Your task to perform on an android device: Open calendar and show me the third week of next month Image 0: 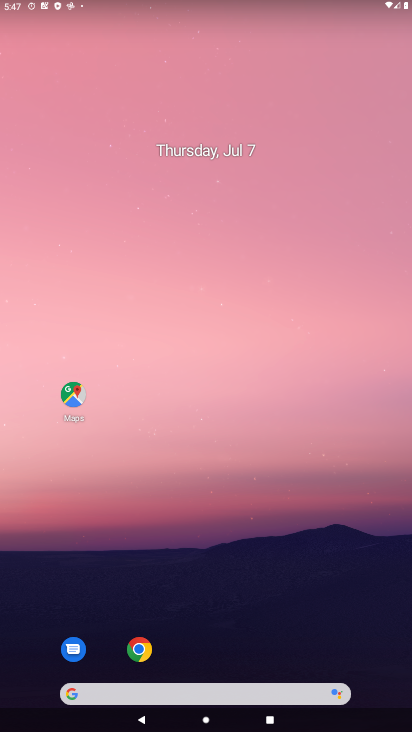
Step 0: drag from (374, 669) to (222, 59)
Your task to perform on an android device: Open calendar and show me the third week of next month Image 1: 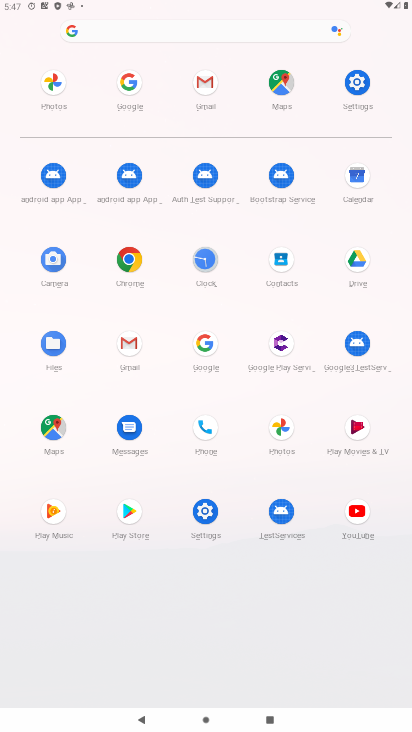
Step 1: click (357, 170)
Your task to perform on an android device: Open calendar and show me the third week of next month Image 2: 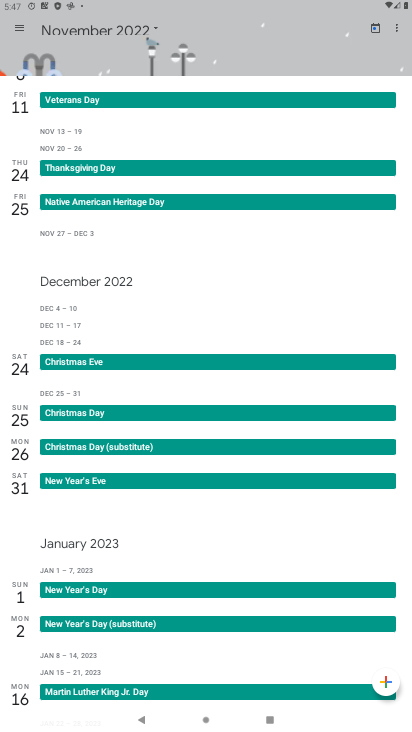
Step 2: click (72, 28)
Your task to perform on an android device: Open calendar and show me the third week of next month Image 3: 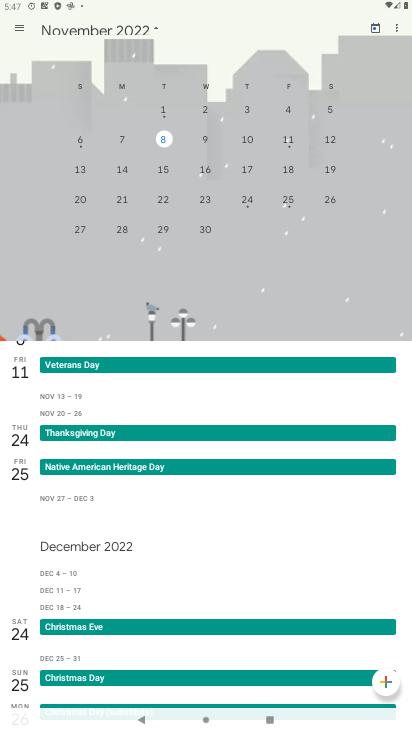
Step 3: drag from (349, 166) to (0, 162)
Your task to perform on an android device: Open calendar and show me the third week of next month Image 4: 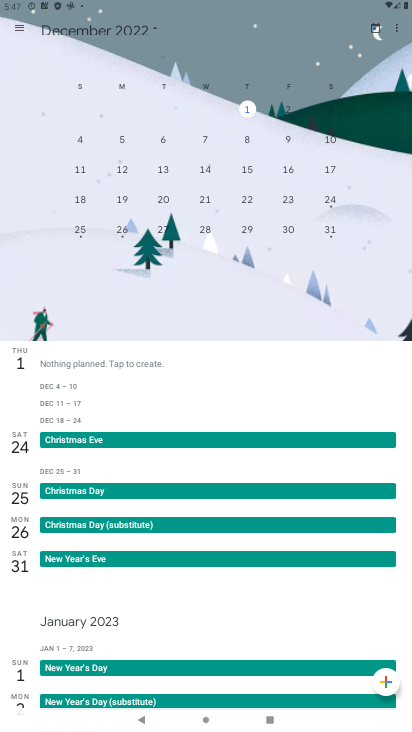
Step 4: click (162, 196)
Your task to perform on an android device: Open calendar and show me the third week of next month Image 5: 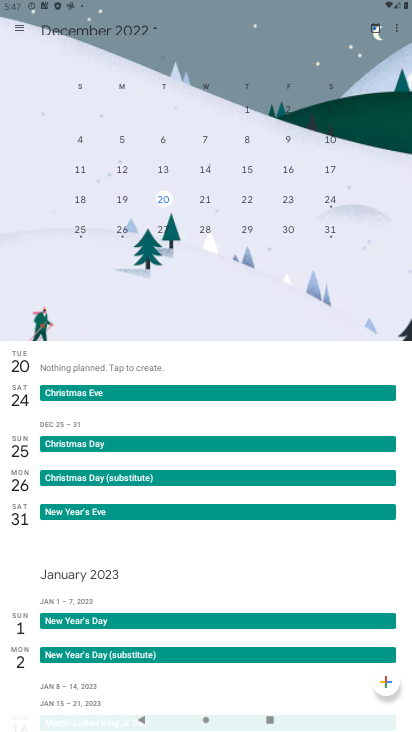
Step 5: task complete